Your task to perform on an android device: move a message to another label in the gmail app Image 0: 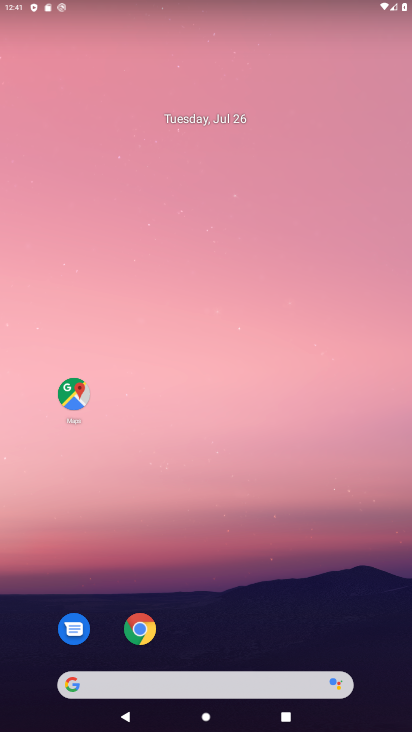
Step 0: drag from (381, 636) to (402, 124)
Your task to perform on an android device: move a message to another label in the gmail app Image 1: 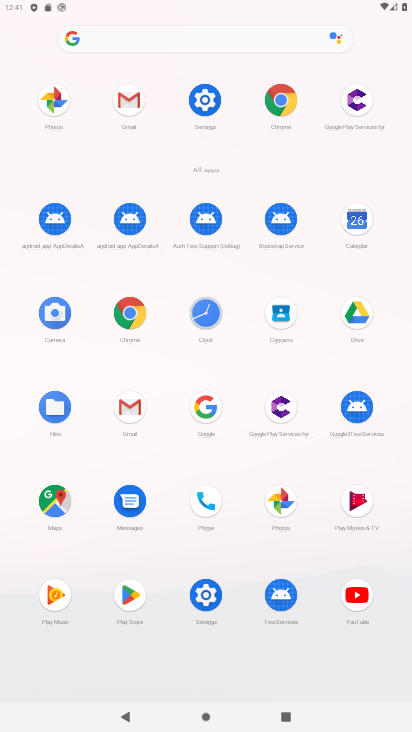
Step 1: click (130, 407)
Your task to perform on an android device: move a message to another label in the gmail app Image 2: 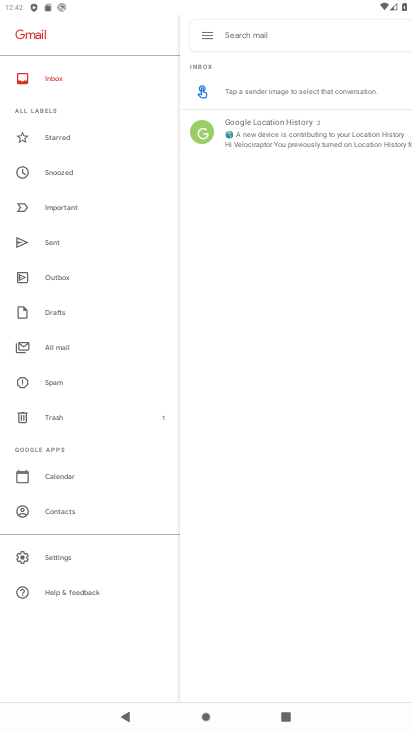
Step 2: task complete